Your task to perform on an android device: toggle wifi Image 0: 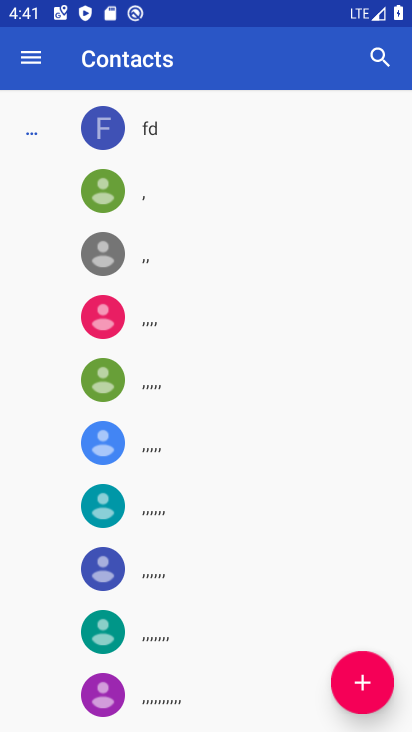
Step 0: drag from (185, 10) to (132, 662)
Your task to perform on an android device: toggle wifi Image 1: 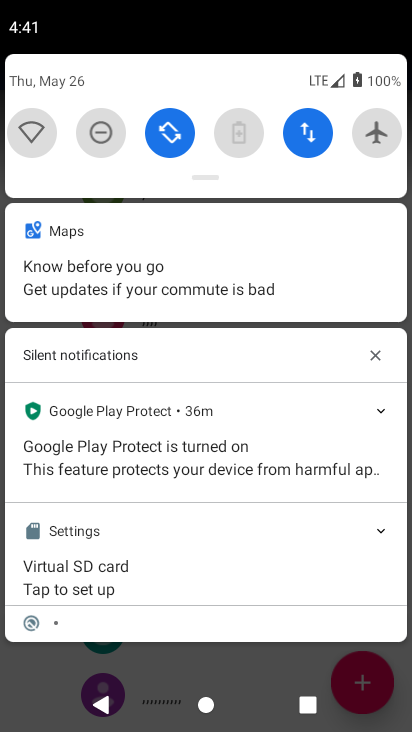
Step 1: click (21, 151)
Your task to perform on an android device: toggle wifi Image 2: 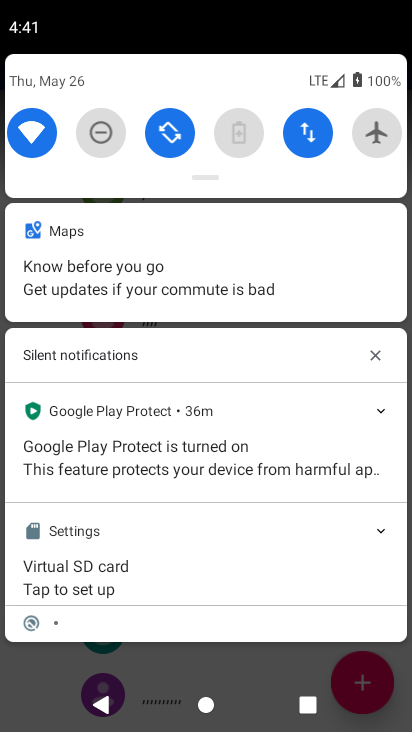
Step 2: task complete